Your task to perform on an android device: add a label to a message in the gmail app Image 0: 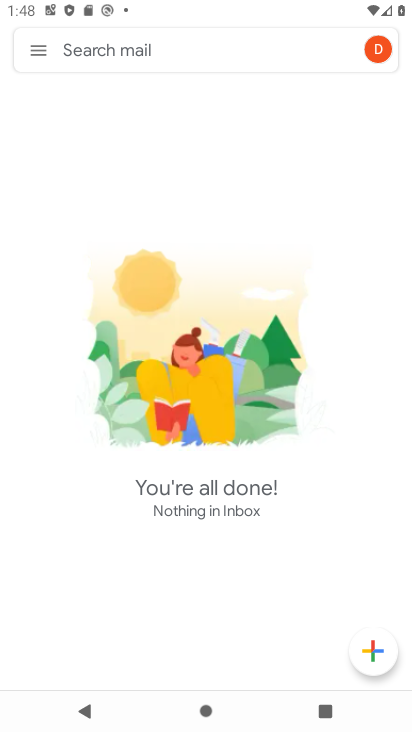
Step 0: click (37, 55)
Your task to perform on an android device: add a label to a message in the gmail app Image 1: 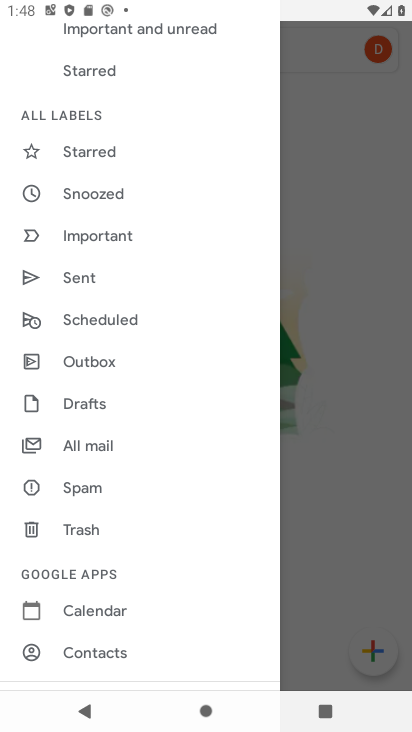
Step 1: drag from (108, 130) to (128, 303)
Your task to perform on an android device: add a label to a message in the gmail app Image 2: 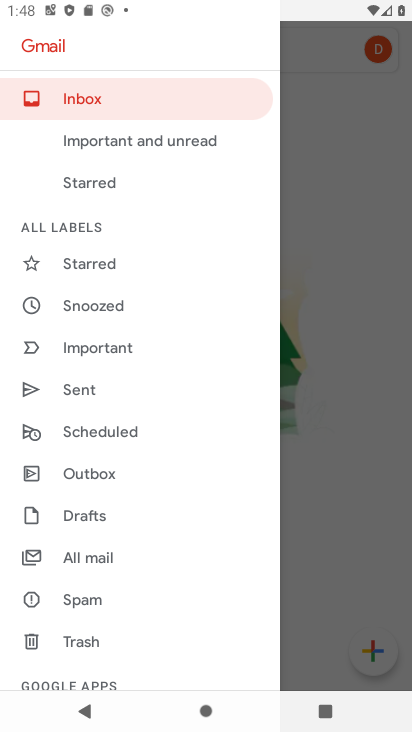
Step 2: drag from (123, 435) to (153, 352)
Your task to perform on an android device: add a label to a message in the gmail app Image 3: 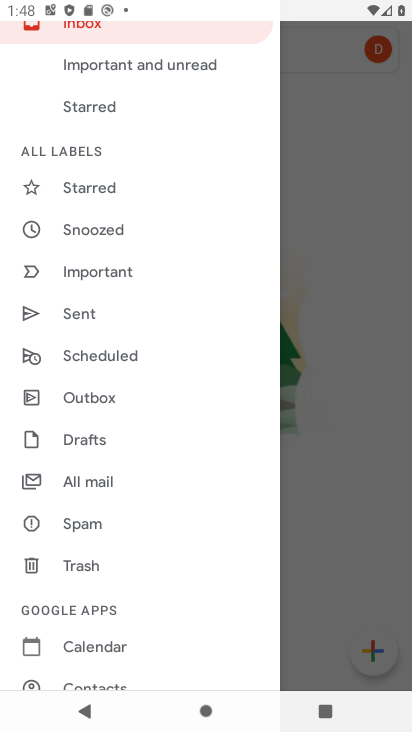
Step 3: click (104, 479)
Your task to perform on an android device: add a label to a message in the gmail app Image 4: 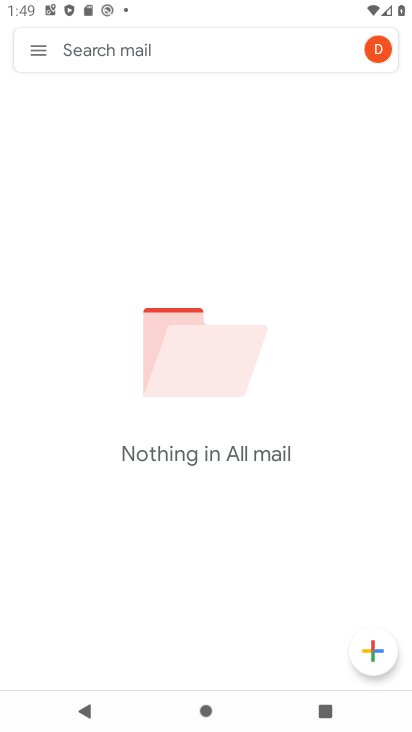
Step 4: click (42, 50)
Your task to perform on an android device: add a label to a message in the gmail app Image 5: 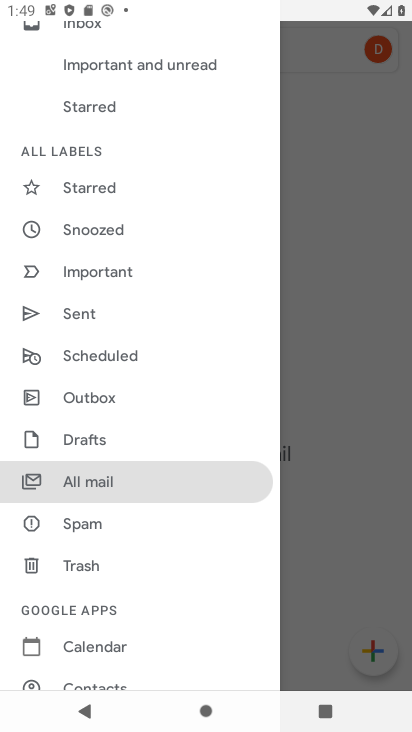
Step 5: click (90, 237)
Your task to perform on an android device: add a label to a message in the gmail app Image 6: 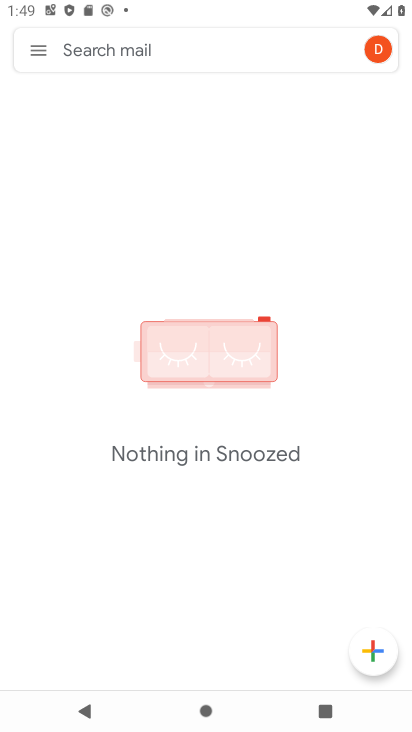
Step 6: click (32, 44)
Your task to perform on an android device: add a label to a message in the gmail app Image 7: 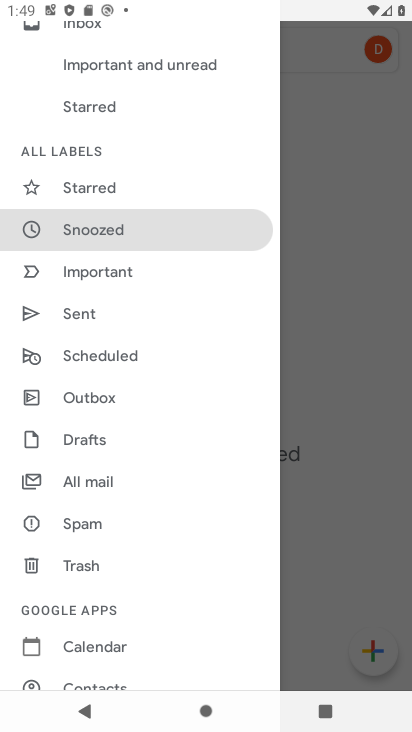
Step 7: drag from (110, 417) to (130, 354)
Your task to perform on an android device: add a label to a message in the gmail app Image 8: 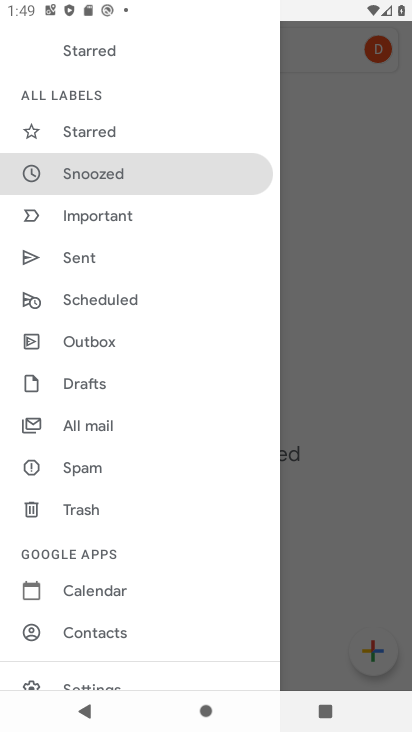
Step 8: drag from (115, 380) to (143, 297)
Your task to perform on an android device: add a label to a message in the gmail app Image 9: 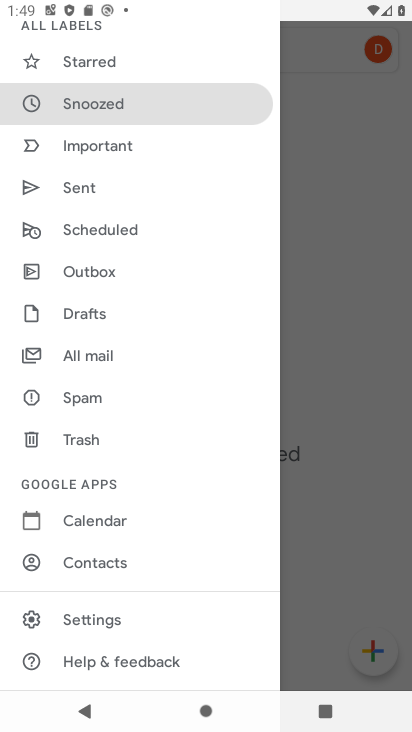
Step 9: drag from (86, 375) to (117, 280)
Your task to perform on an android device: add a label to a message in the gmail app Image 10: 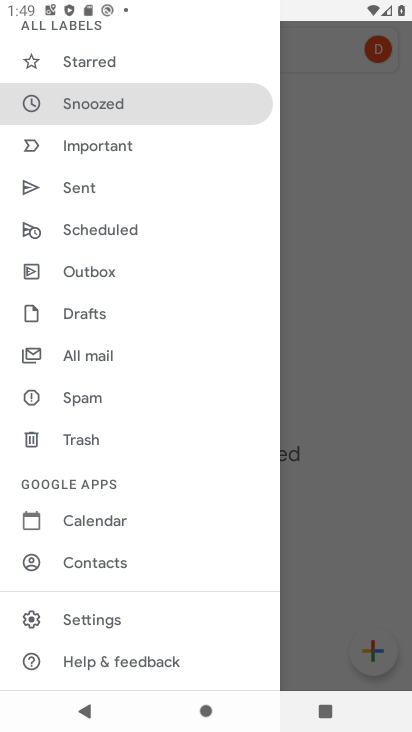
Step 10: click (83, 350)
Your task to perform on an android device: add a label to a message in the gmail app Image 11: 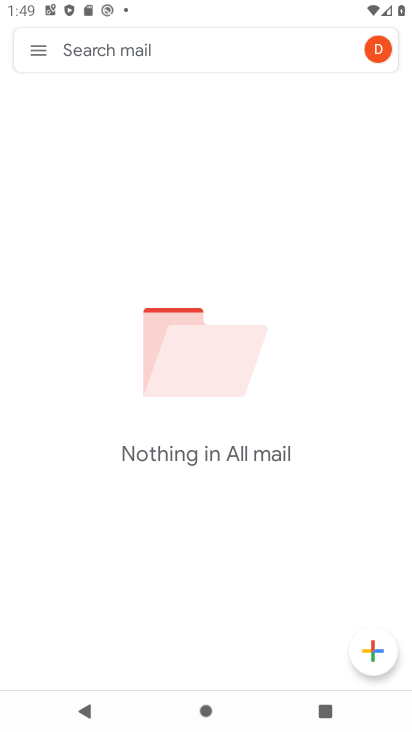
Step 11: click (32, 52)
Your task to perform on an android device: add a label to a message in the gmail app Image 12: 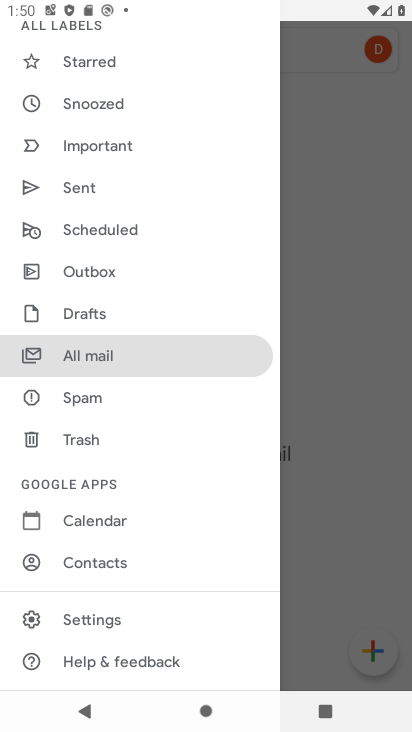
Step 12: drag from (82, 521) to (118, 444)
Your task to perform on an android device: add a label to a message in the gmail app Image 13: 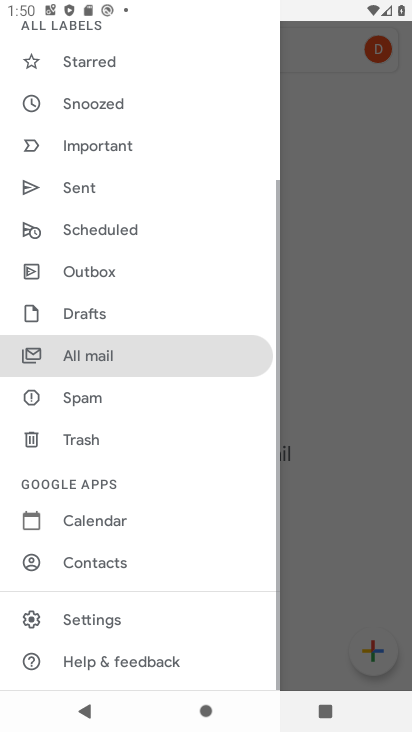
Step 13: click (85, 619)
Your task to perform on an android device: add a label to a message in the gmail app Image 14: 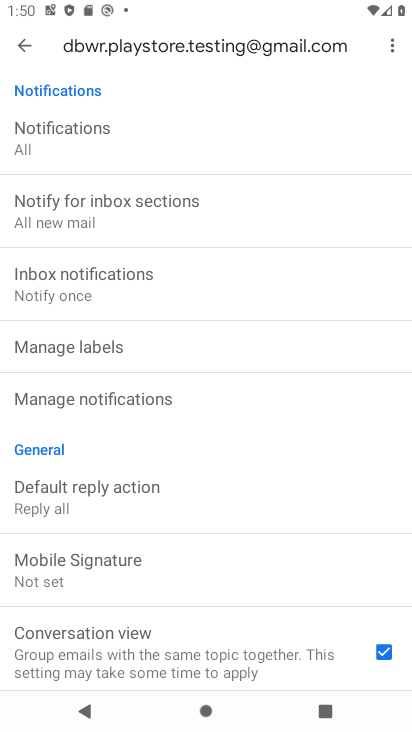
Step 14: task complete